Your task to perform on an android device: Open my contact list Image 0: 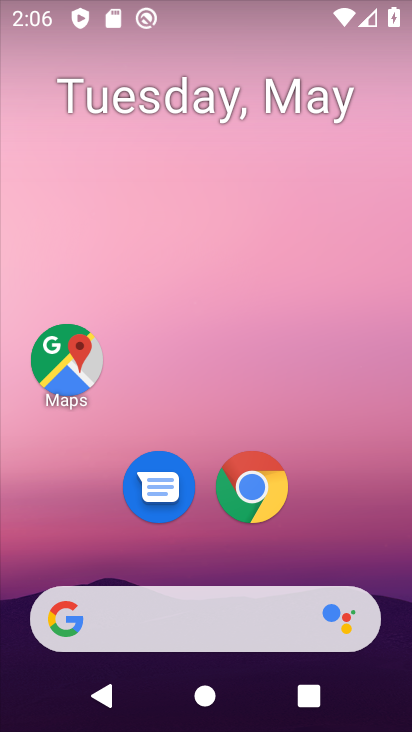
Step 0: drag from (93, 567) to (239, 147)
Your task to perform on an android device: Open my contact list Image 1: 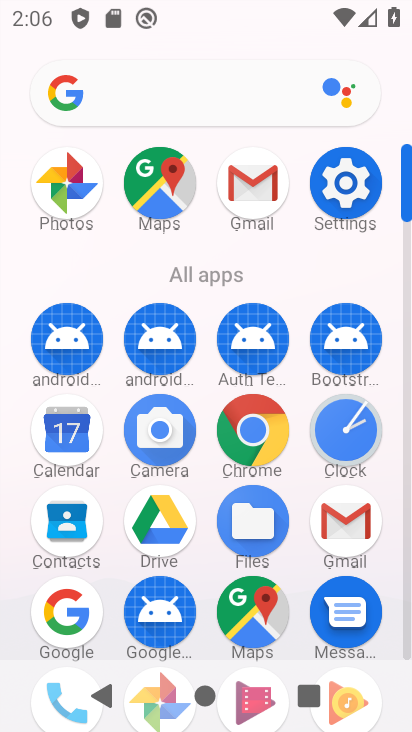
Step 1: drag from (121, 597) to (238, 386)
Your task to perform on an android device: Open my contact list Image 2: 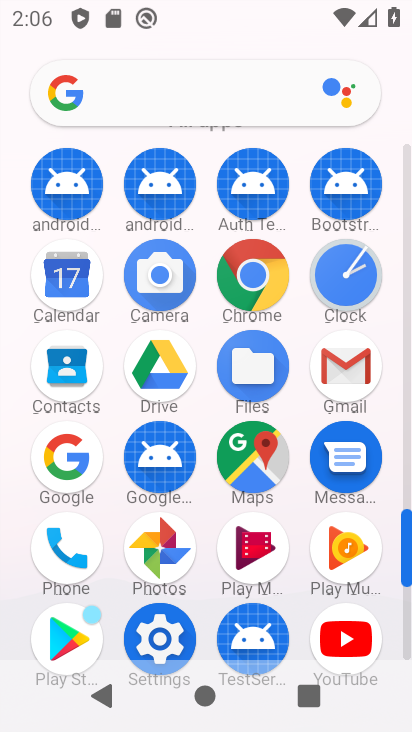
Step 2: click (80, 393)
Your task to perform on an android device: Open my contact list Image 3: 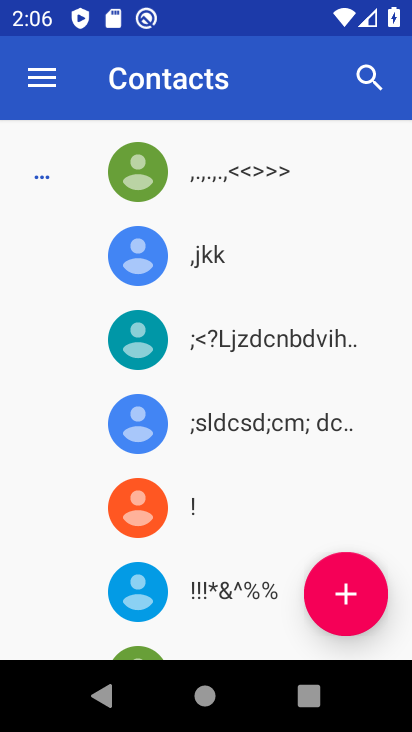
Step 3: task complete